Your task to perform on an android device: open a bookmark in the chrome app Image 0: 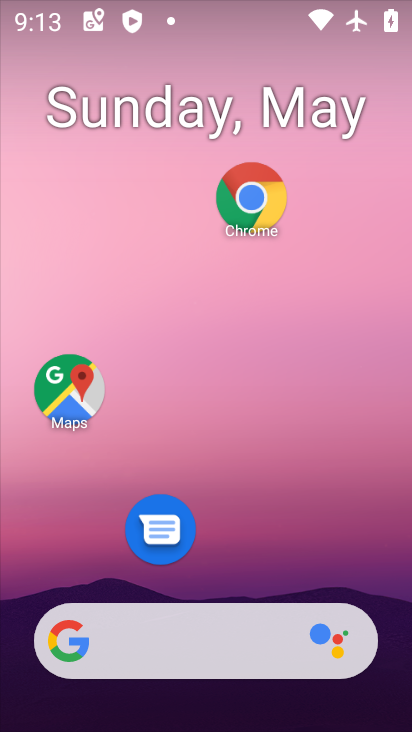
Step 0: click (251, 193)
Your task to perform on an android device: open a bookmark in the chrome app Image 1: 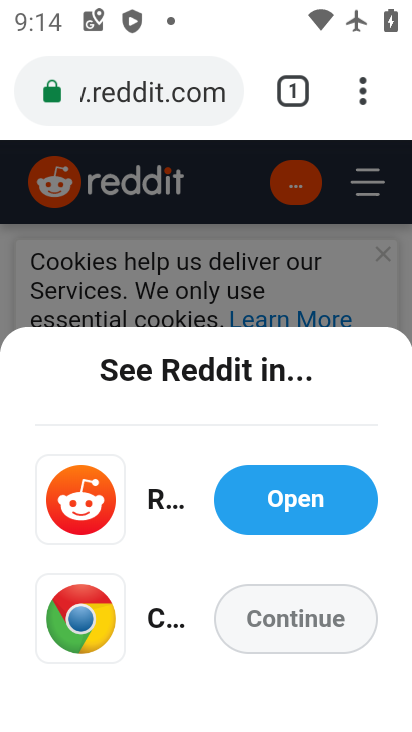
Step 1: click (365, 94)
Your task to perform on an android device: open a bookmark in the chrome app Image 2: 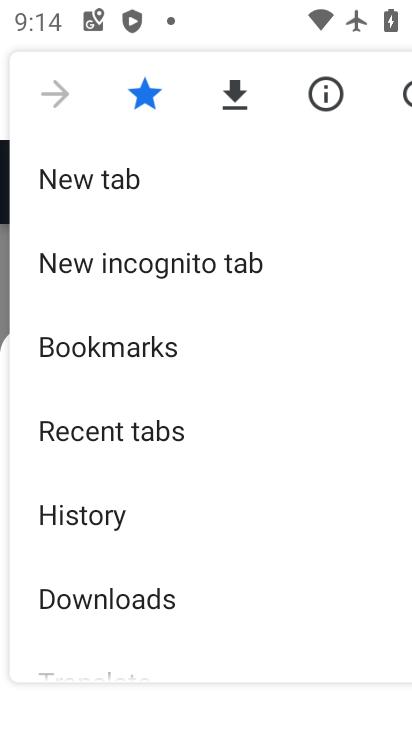
Step 2: click (146, 357)
Your task to perform on an android device: open a bookmark in the chrome app Image 3: 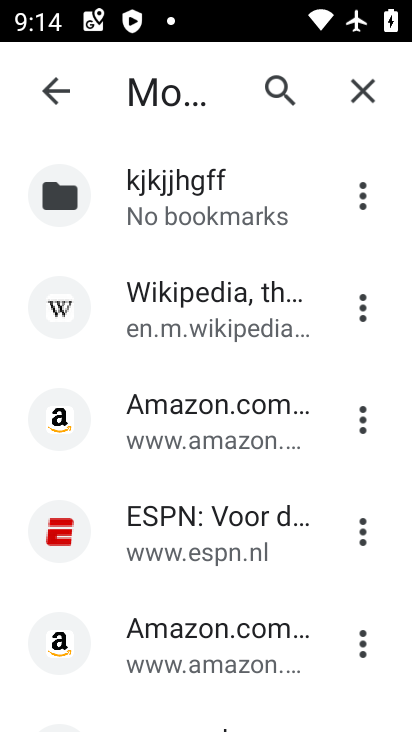
Step 3: click (164, 546)
Your task to perform on an android device: open a bookmark in the chrome app Image 4: 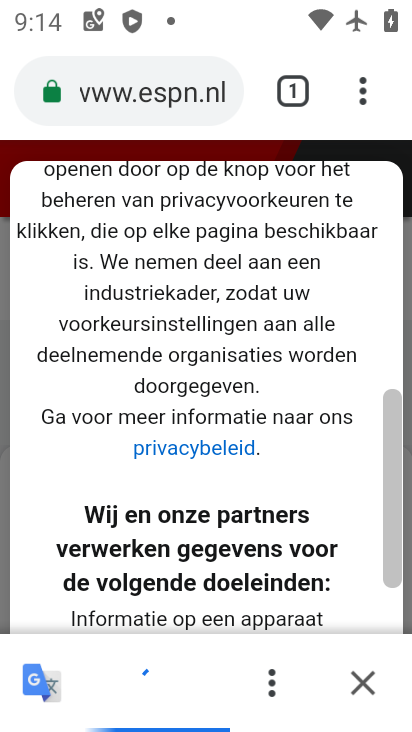
Step 4: task complete